Your task to perform on an android device: Open the calendar app, open the side menu, and click the "Day" option Image 0: 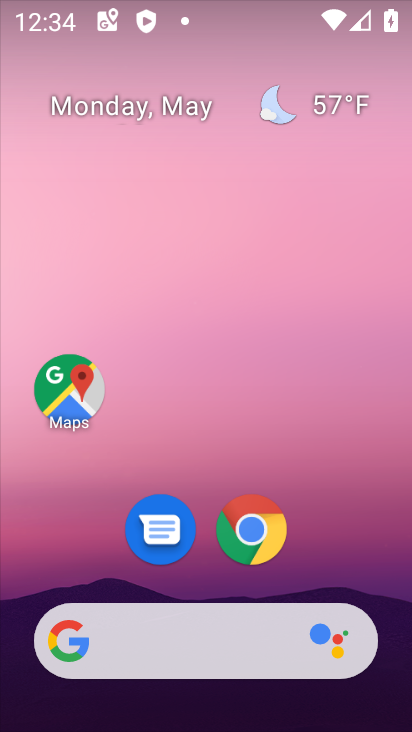
Step 0: drag from (356, 517) to (230, 20)
Your task to perform on an android device: Open the calendar app, open the side menu, and click the "Day" option Image 1: 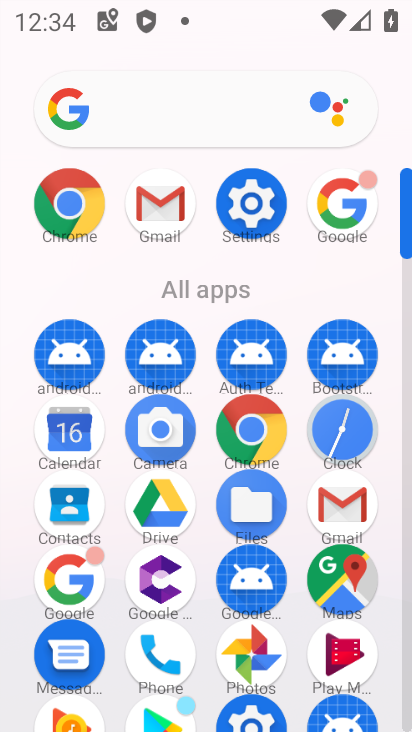
Step 1: click (72, 436)
Your task to perform on an android device: Open the calendar app, open the side menu, and click the "Day" option Image 2: 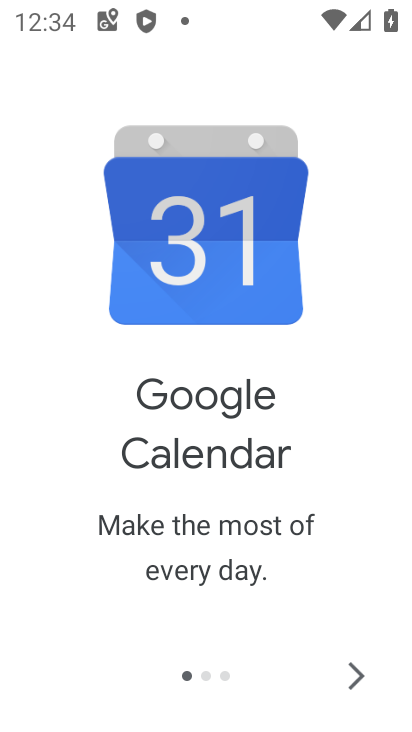
Step 2: click (361, 671)
Your task to perform on an android device: Open the calendar app, open the side menu, and click the "Day" option Image 3: 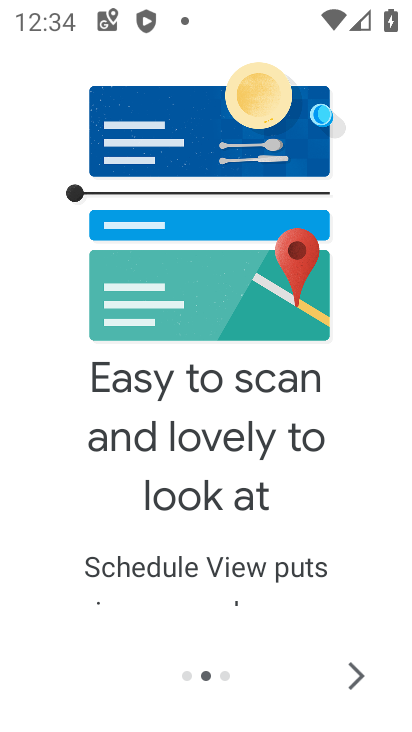
Step 3: click (361, 671)
Your task to perform on an android device: Open the calendar app, open the side menu, and click the "Day" option Image 4: 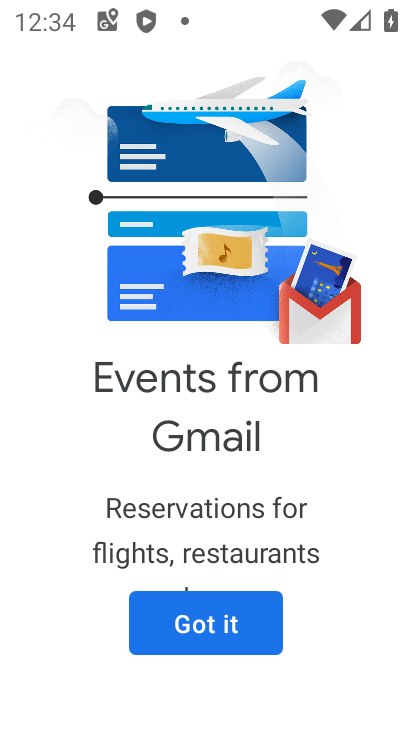
Step 4: click (188, 622)
Your task to perform on an android device: Open the calendar app, open the side menu, and click the "Day" option Image 5: 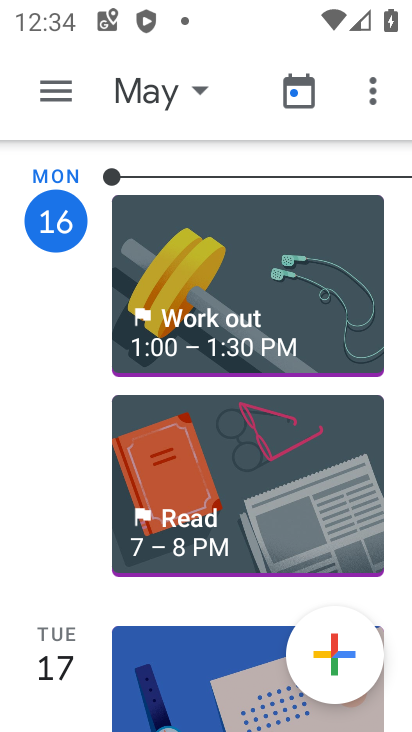
Step 5: click (53, 83)
Your task to perform on an android device: Open the calendar app, open the side menu, and click the "Day" option Image 6: 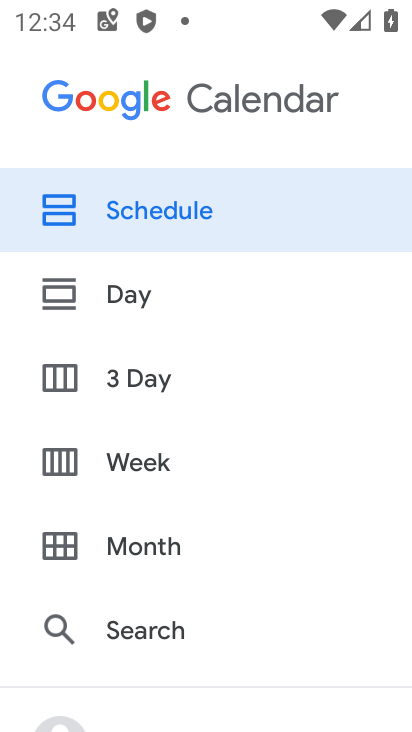
Step 6: click (134, 279)
Your task to perform on an android device: Open the calendar app, open the side menu, and click the "Day" option Image 7: 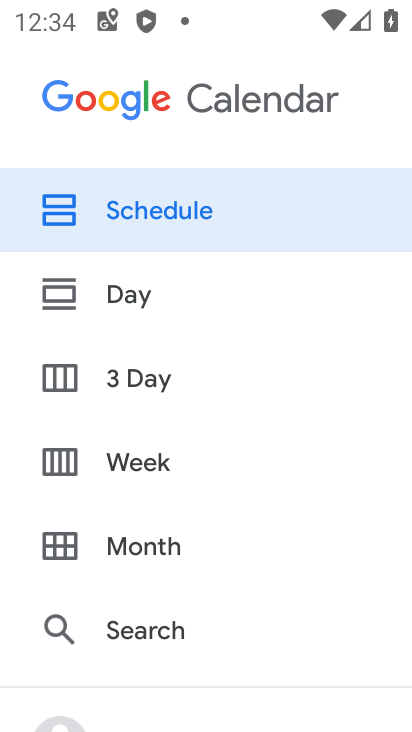
Step 7: click (132, 306)
Your task to perform on an android device: Open the calendar app, open the side menu, and click the "Day" option Image 8: 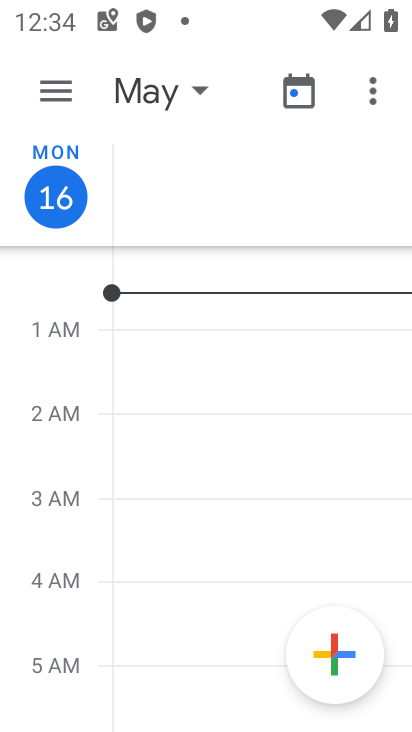
Step 8: task complete